Your task to perform on an android device: Clear the cart on bestbuy. Search for "macbook" on bestbuy, select the first entry, add it to the cart, then select checkout. Image 0: 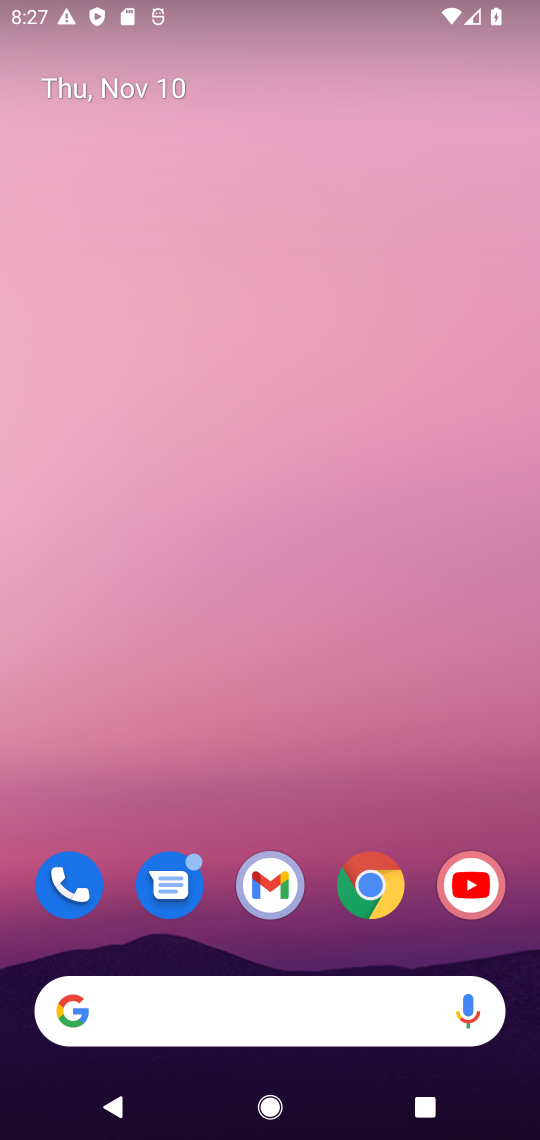
Step 0: click (392, 905)
Your task to perform on an android device: Clear the cart on bestbuy. Search for "macbook" on bestbuy, select the first entry, add it to the cart, then select checkout. Image 1: 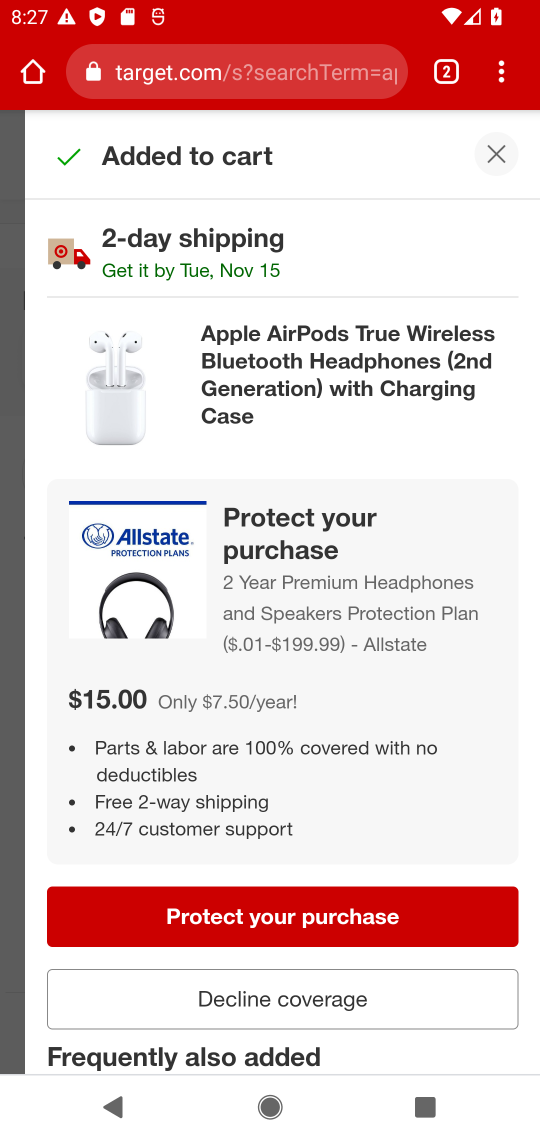
Step 1: click (451, 80)
Your task to perform on an android device: Clear the cart on bestbuy. Search for "macbook" on bestbuy, select the first entry, add it to the cart, then select checkout. Image 2: 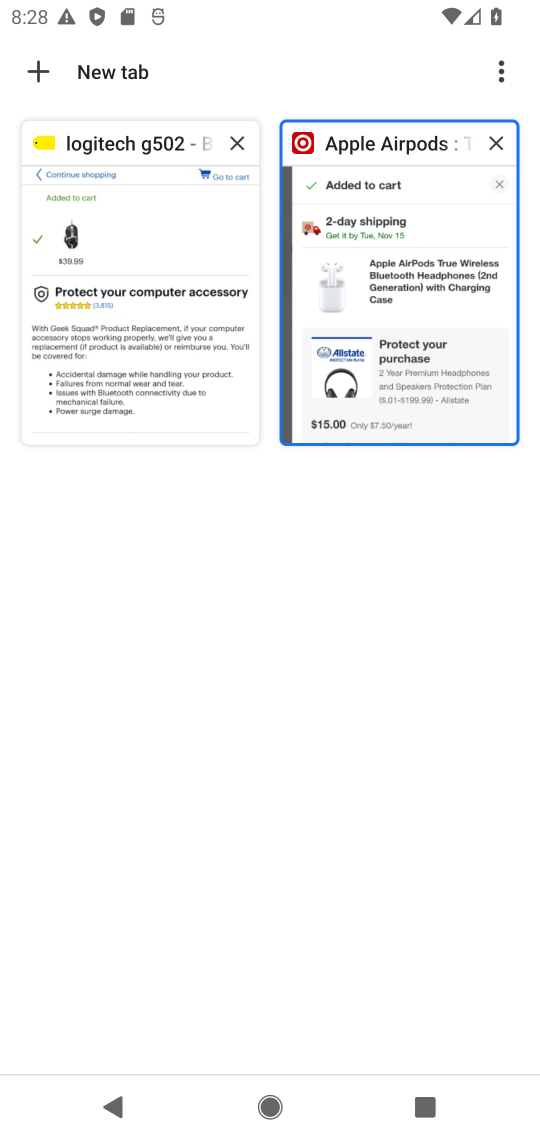
Step 2: click (120, 213)
Your task to perform on an android device: Clear the cart on bestbuy. Search for "macbook" on bestbuy, select the first entry, add it to the cart, then select checkout. Image 3: 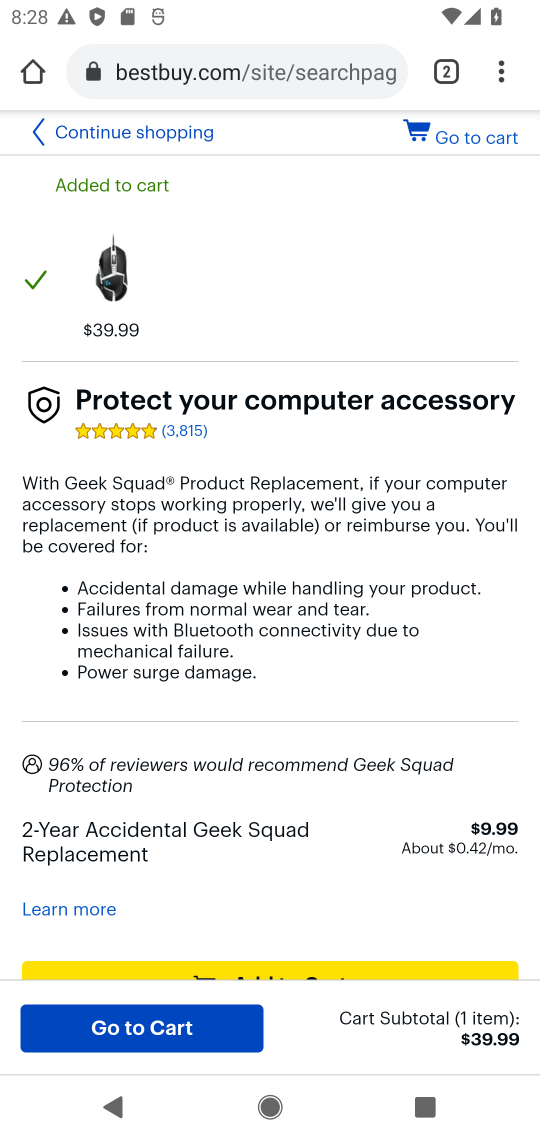
Step 3: click (159, 124)
Your task to perform on an android device: Clear the cart on bestbuy. Search for "macbook" on bestbuy, select the first entry, add it to the cart, then select checkout. Image 4: 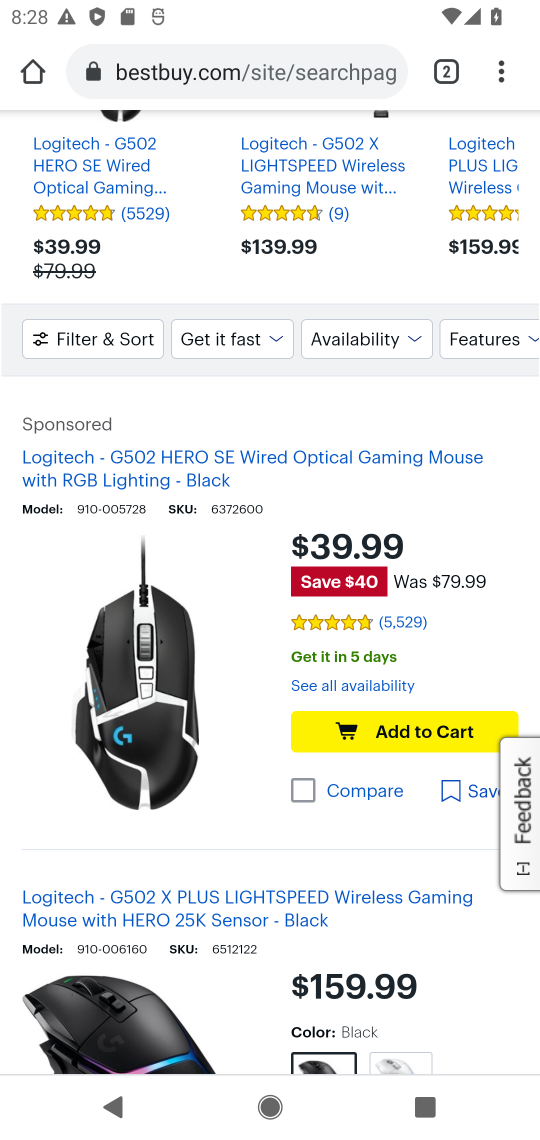
Step 4: drag from (379, 262) to (264, 964)
Your task to perform on an android device: Clear the cart on bestbuy. Search for "macbook" on bestbuy, select the first entry, add it to the cart, then select checkout. Image 5: 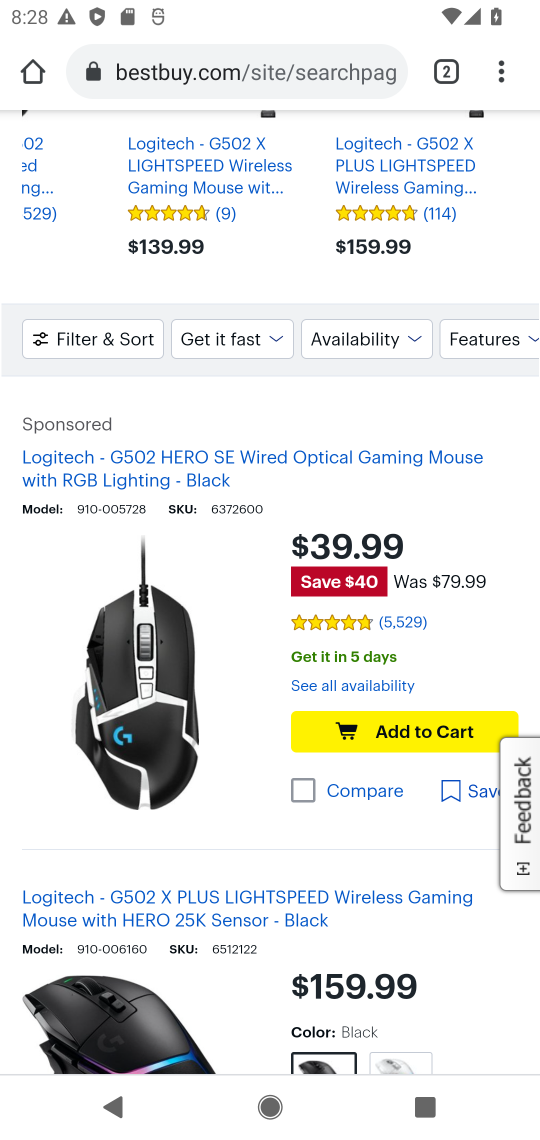
Step 5: drag from (261, 187) to (248, 592)
Your task to perform on an android device: Clear the cart on bestbuy. Search for "macbook" on bestbuy, select the first entry, add it to the cart, then select checkout. Image 6: 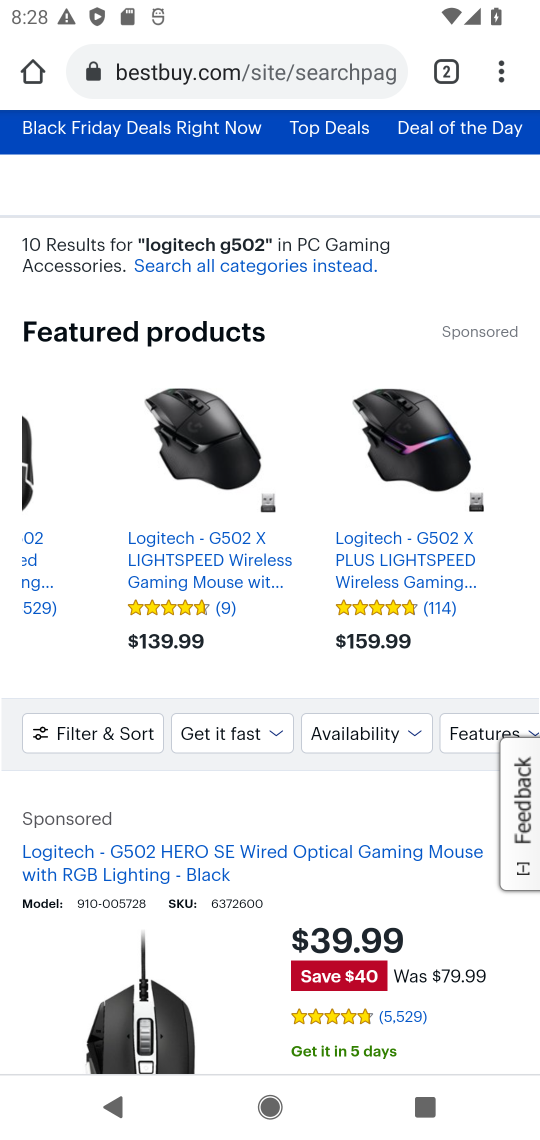
Step 6: drag from (314, 183) to (237, 646)
Your task to perform on an android device: Clear the cart on bestbuy. Search for "macbook" on bestbuy, select the first entry, add it to the cart, then select checkout. Image 7: 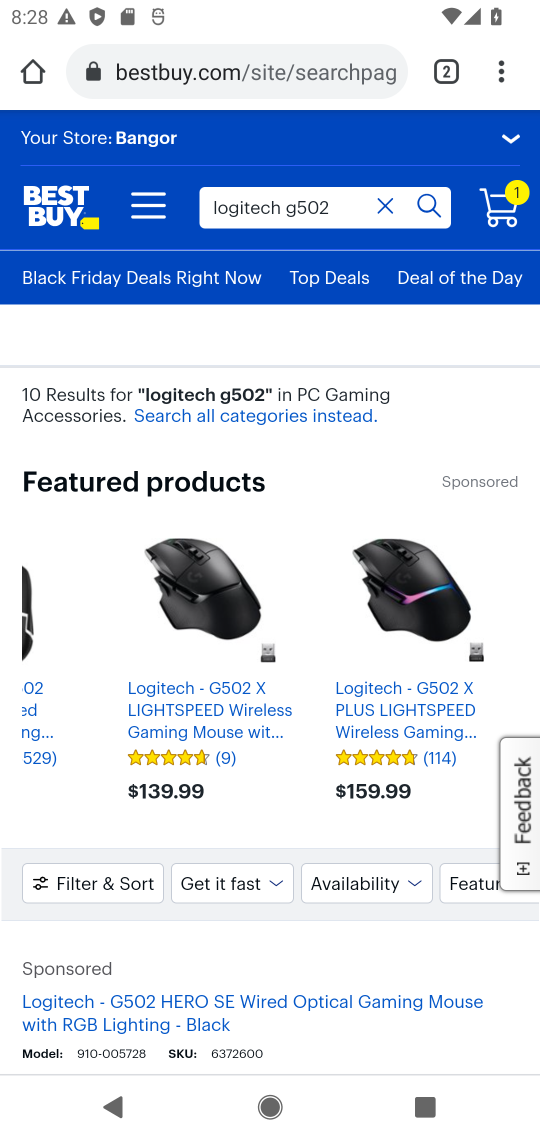
Step 7: click (387, 205)
Your task to perform on an android device: Clear the cart on bestbuy. Search for "macbook" on bestbuy, select the first entry, add it to the cart, then select checkout. Image 8: 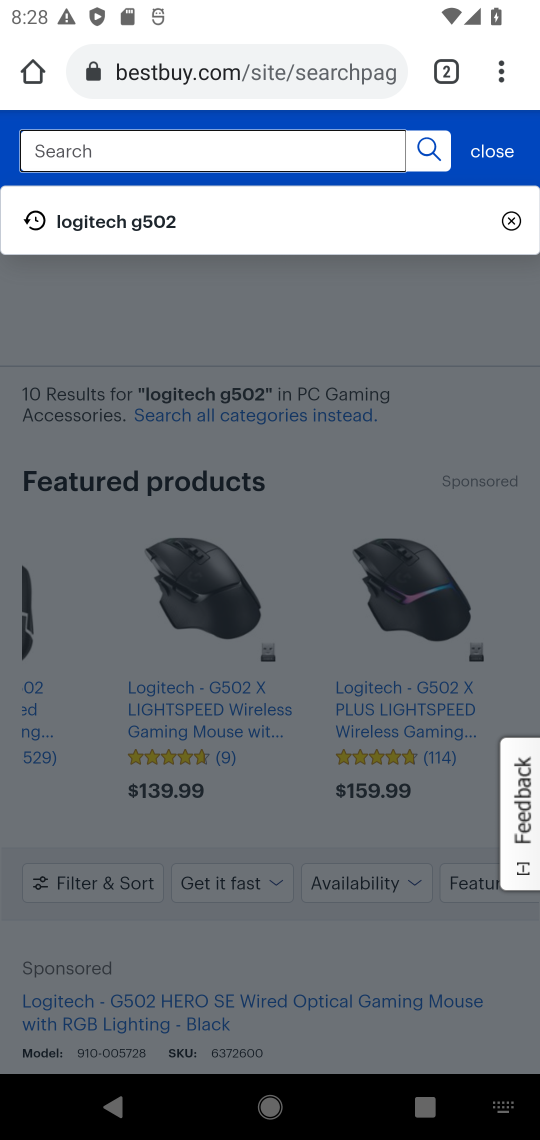
Step 8: type "macbook"
Your task to perform on an android device: Clear the cart on bestbuy. Search for "macbook" on bestbuy, select the first entry, add it to the cart, then select checkout. Image 9: 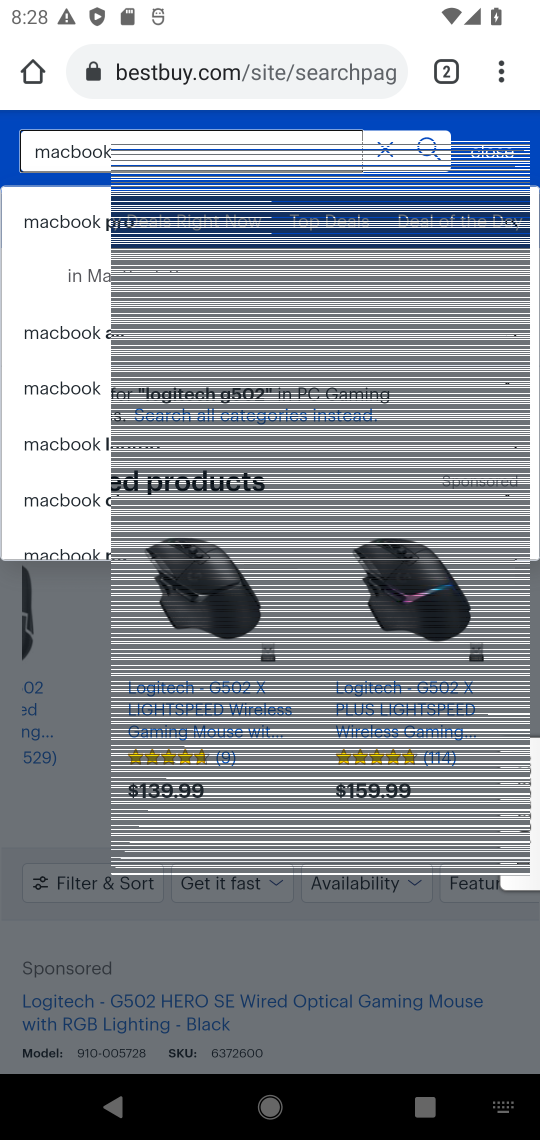
Step 9: click (86, 223)
Your task to perform on an android device: Clear the cart on bestbuy. Search for "macbook" on bestbuy, select the first entry, add it to the cart, then select checkout. Image 10: 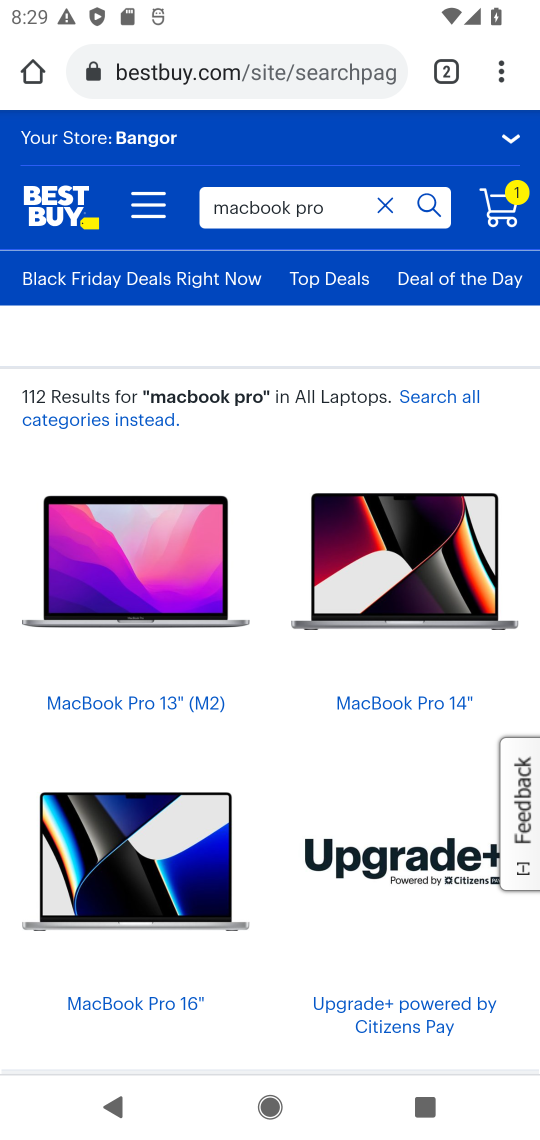
Step 10: click (116, 704)
Your task to perform on an android device: Clear the cart on bestbuy. Search for "macbook" on bestbuy, select the first entry, add it to the cart, then select checkout. Image 11: 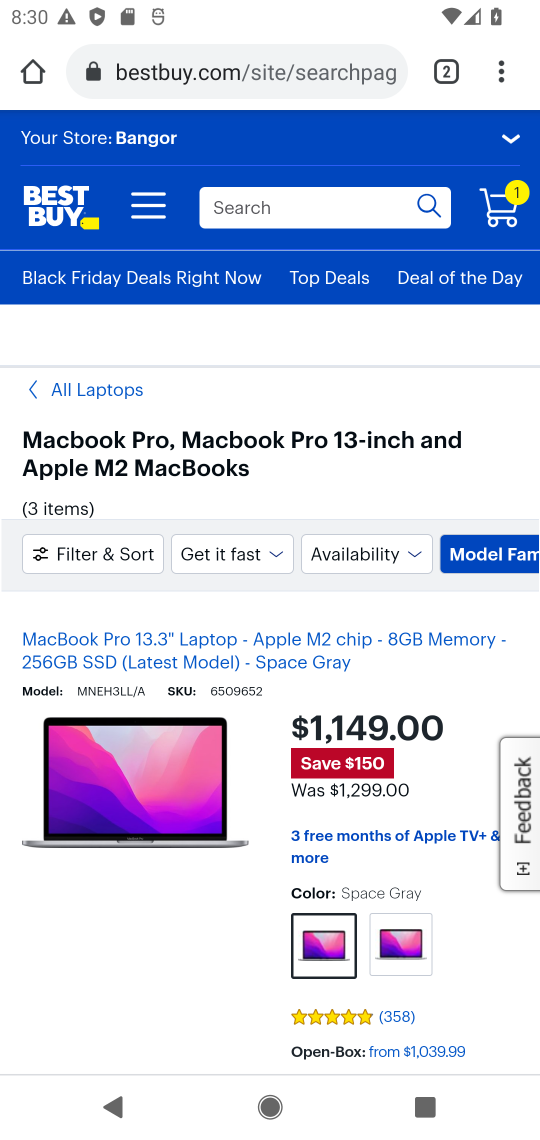
Step 11: drag from (57, 1013) to (215, 244)
Your task to perform on an android device: Clear the cart on bestbuy. Search for "macbook" on bestbuy, select the first entry, add it to the cart, then select checkout. Image 12: 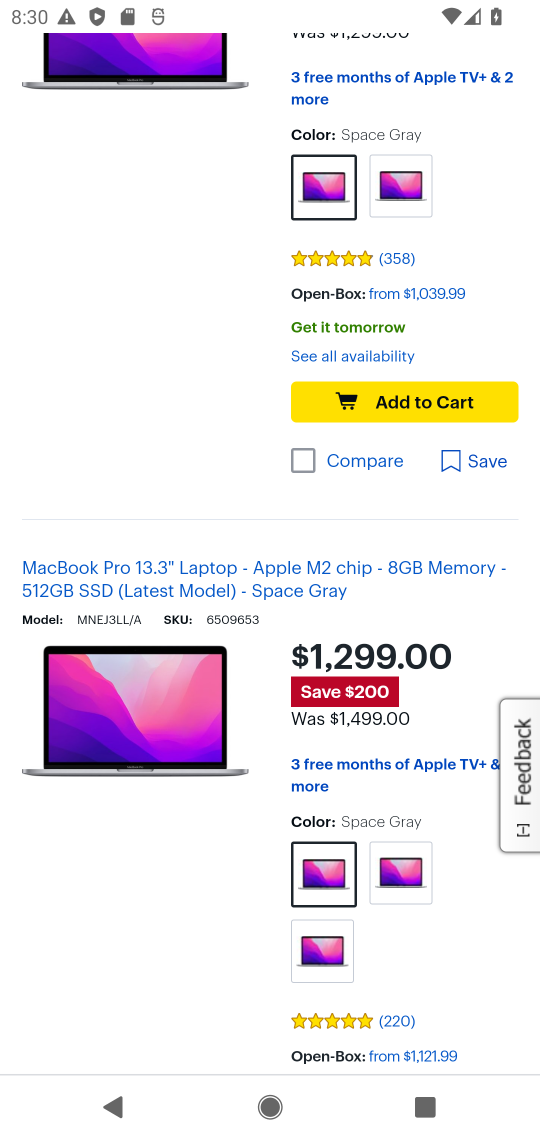
Step 12: click (462, 399)
Your task to perform on an android device: Clear the cart on bestbuy. Search for "macbook" on bestbuy, select the first entry, add it to the cart, then select checkout. Image 13: 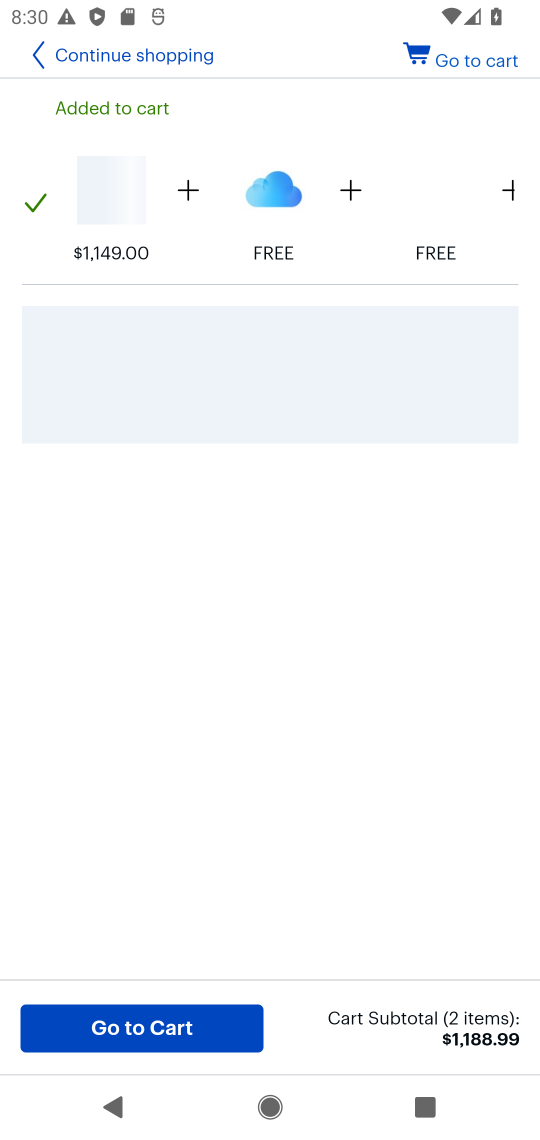
Step 13: task complete